Your task to perform on an android device: open device folders in google photos Image 0: 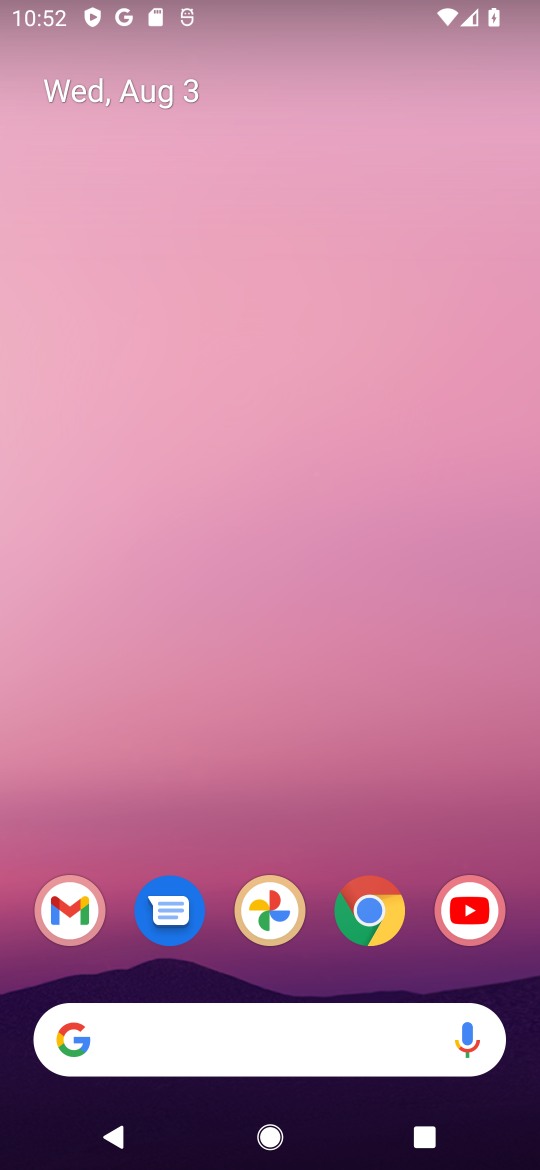
Step 0: press home button
Your task to perform on an android device: open device folders in google photos Image 1: 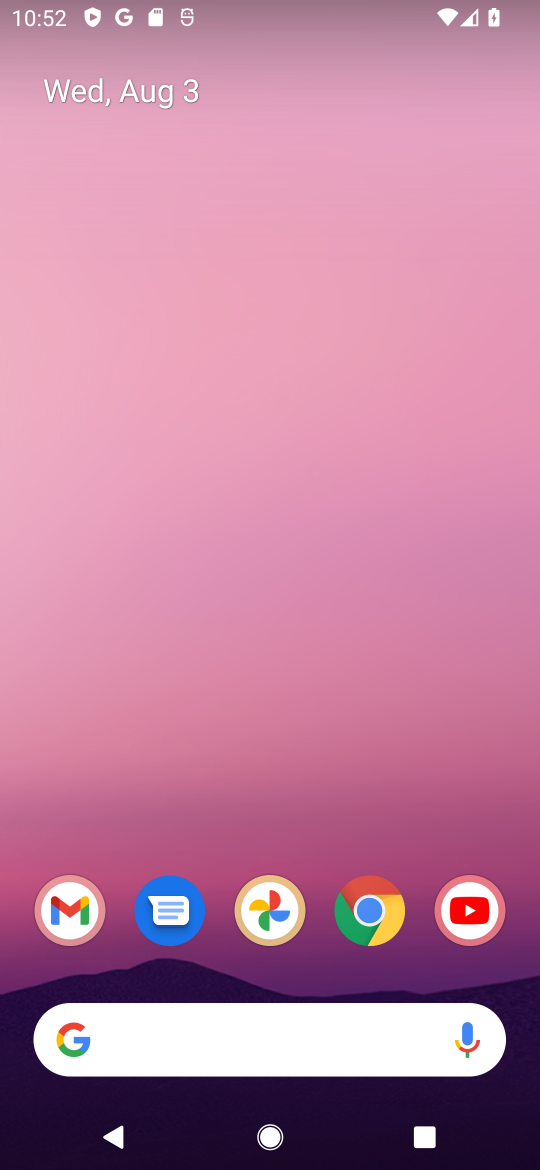
Step 1: click (266, 919)
Your task to perform on an android device: open device folders in google photos Image 2: 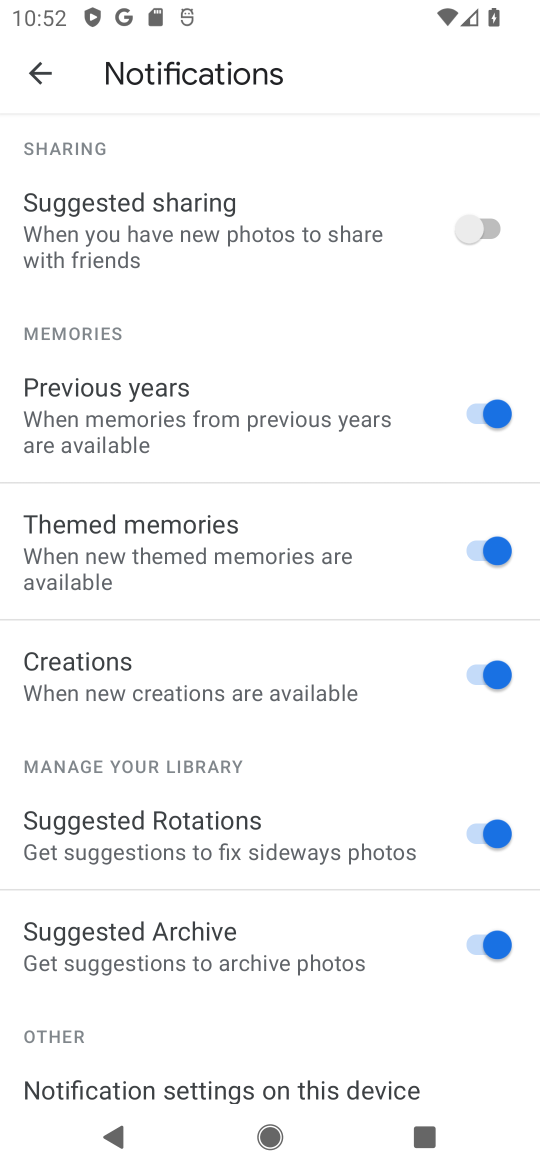
Step 2: click (43, 69)
Your task to perform on an android device: open device folders in google photos Image 3: 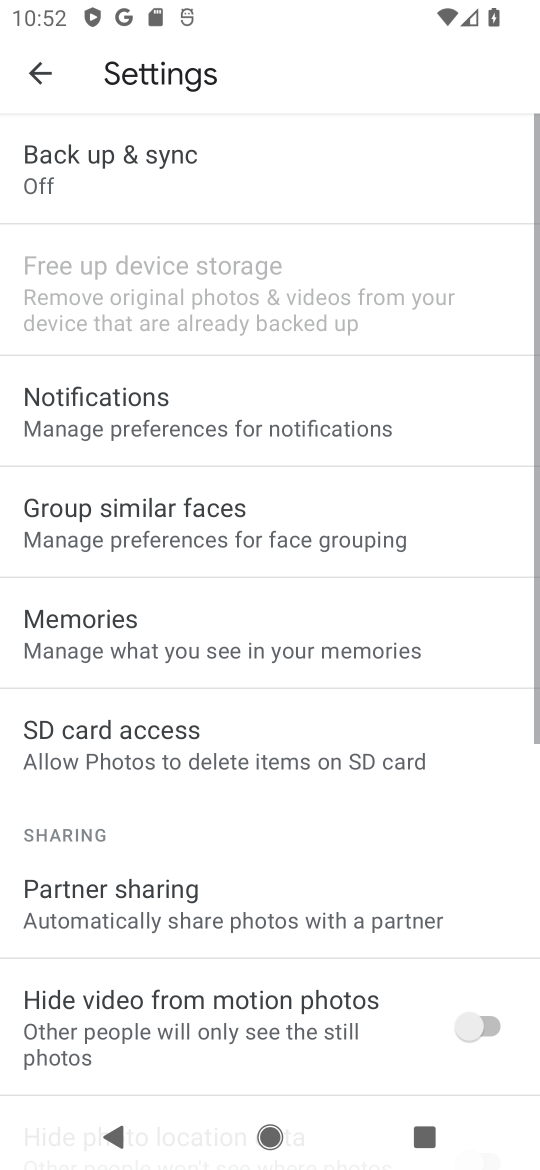
Step 3: click (43, 69)
Your task to perform on an android device: open device folders in google photos Image 4: 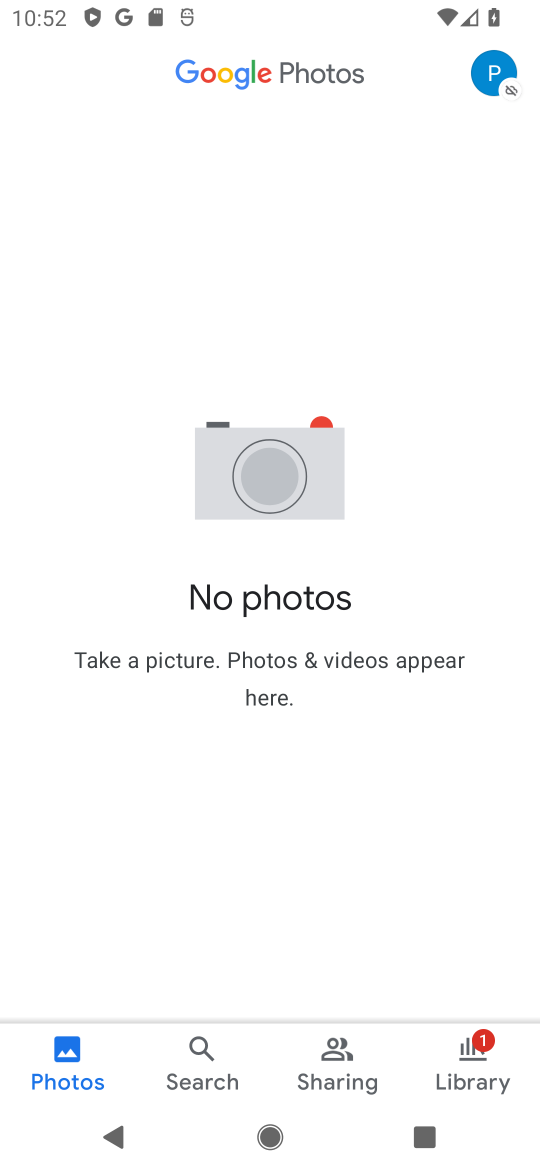
Step 4: click (460, 1051)
Your task to perform on an android device: open device folders in google photos Image 5: 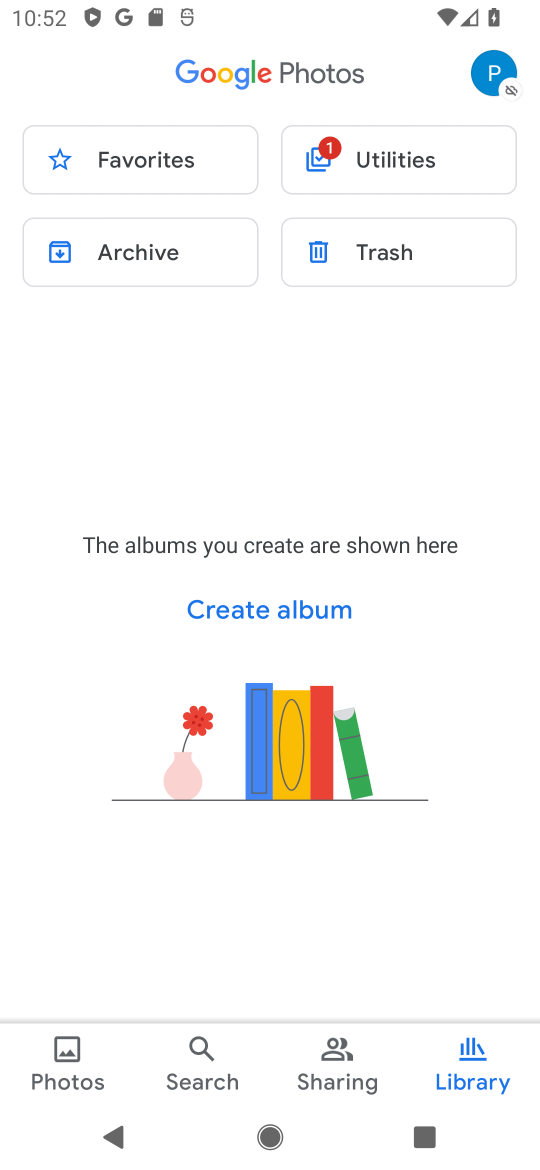
Step 5: click (372, 152)
Your task to perform on an android device: open device folders in google photos Image 6: 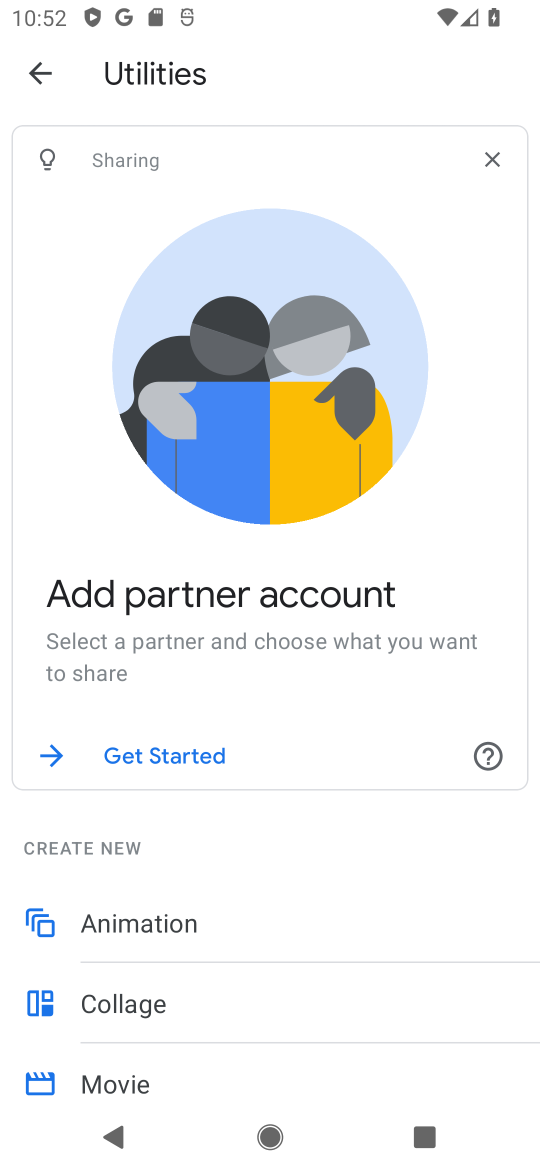
Step 6: task complete